Your task to perform on an android device: search for starred emails in the gmail app Image 0: 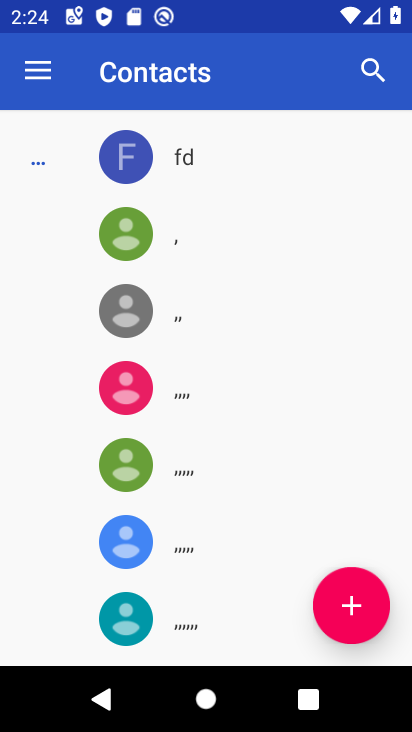
Step 0: press home button
Your task to perform on an android device: search for starred emails in the gmail app Image 1: 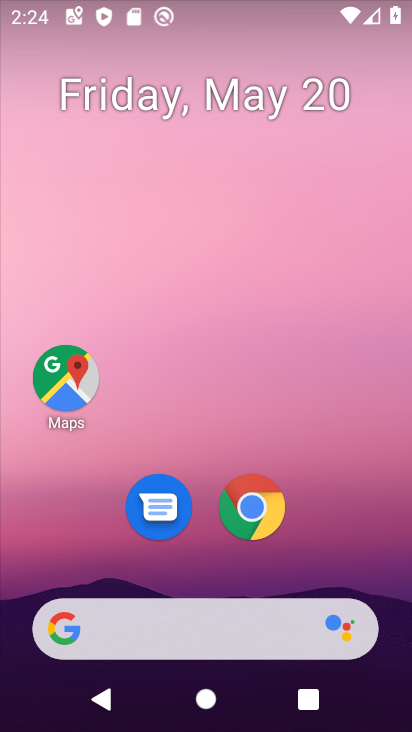
Step 1: drag from (227, 724) to (233, 147)
Your task to perform on an android device: search for starred emails in the gmail app Image 2: 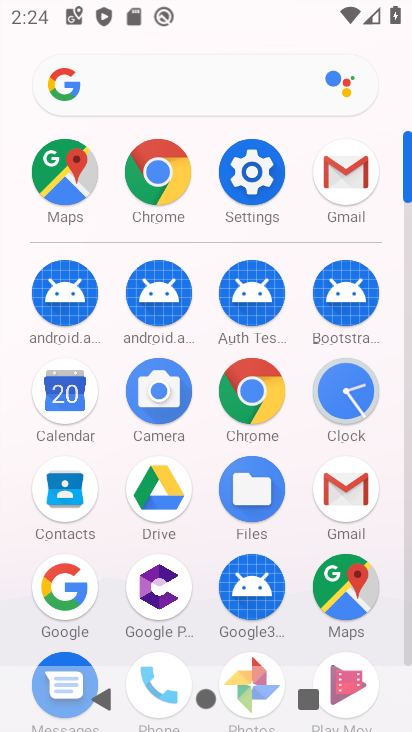
Step 2: click (343, 479)
Your task to perform on an android device: search for starred emails in the gmail app Image 3: 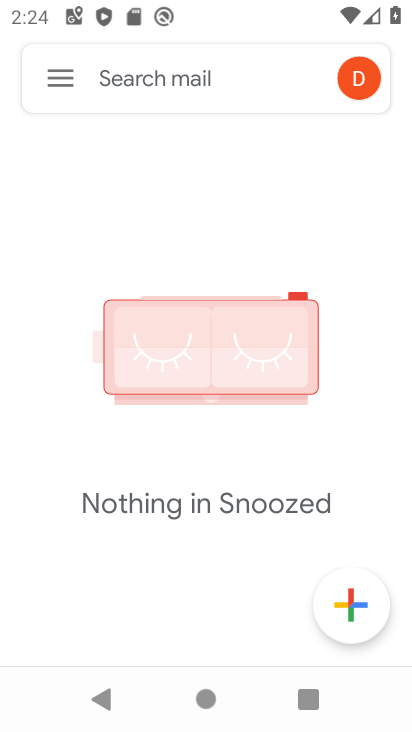
Step 3: click (59, 78)
Your task to perform on an android device: search for starred emails in the gmail app Image 4: 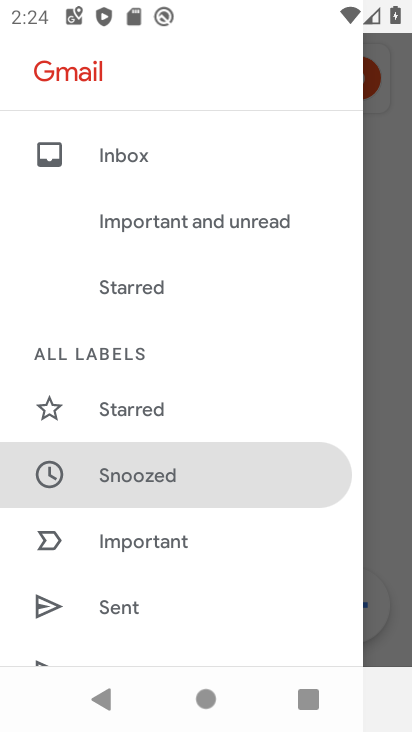
Step 4: drag from (100, 601) to (122, 170)
Your task to perform on an android device: search for starred emails in the gmail app Image 5: 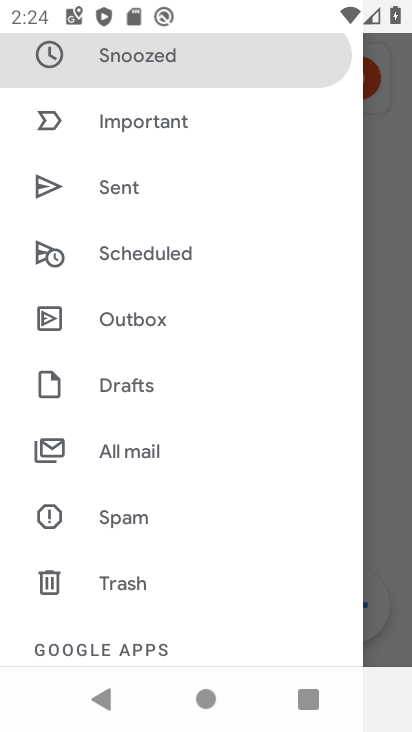
Step 5: drag from (155, 573) to (161, 207)
Your task to perform on an android device: search for starred emails in the gmail app Image 6: 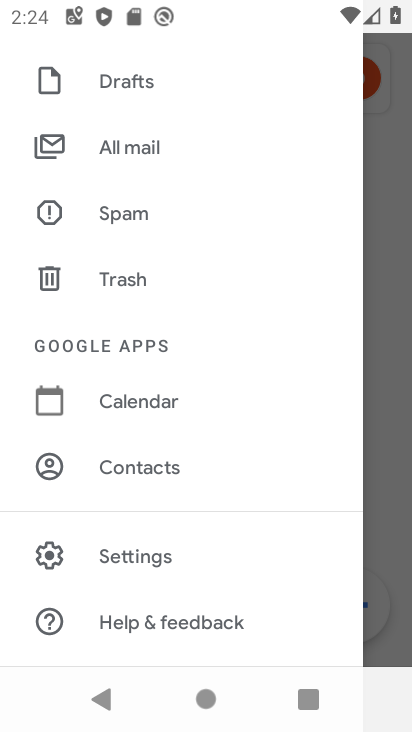
Step 6: drag from (206, 127) to (242, 525)
Your task to perform on an android device: search for starred emails in the gmail app Image 7: 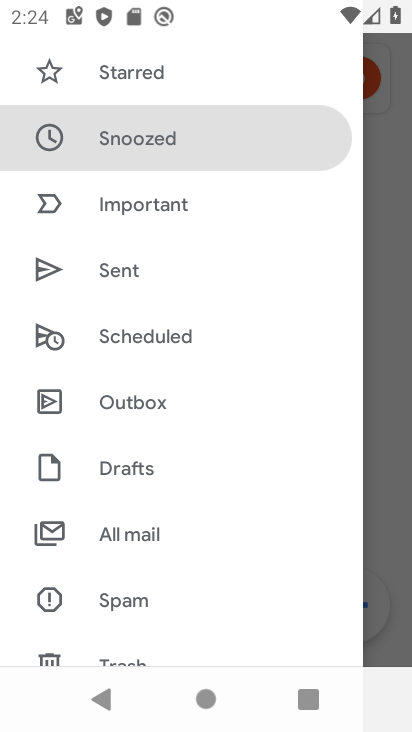
Step 7: drag from (208, 207) to (218, 554)
Your task to perform on an android device: search for starred emails in the gmail app Image 8: 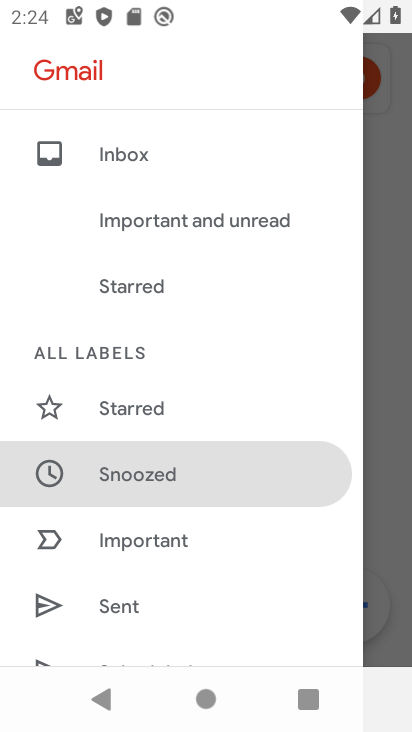
Step 8: click (146, 284)
Your task to perform on an android device: search for starred emails in the gmail app Image 9: 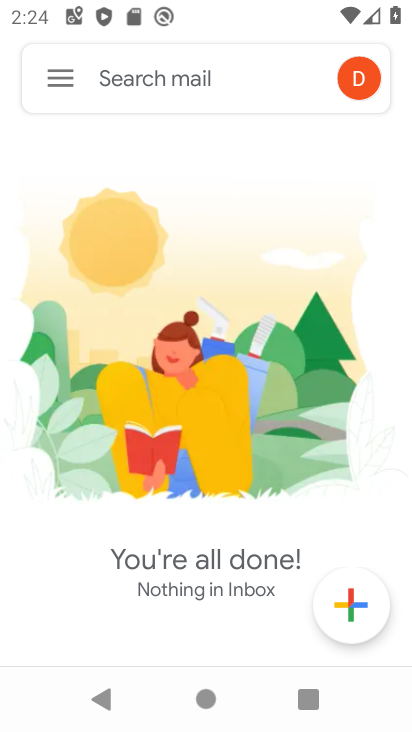
Step 9: task complete